Your task to perform on an android device: turn on translation in the chrome app Image 0: 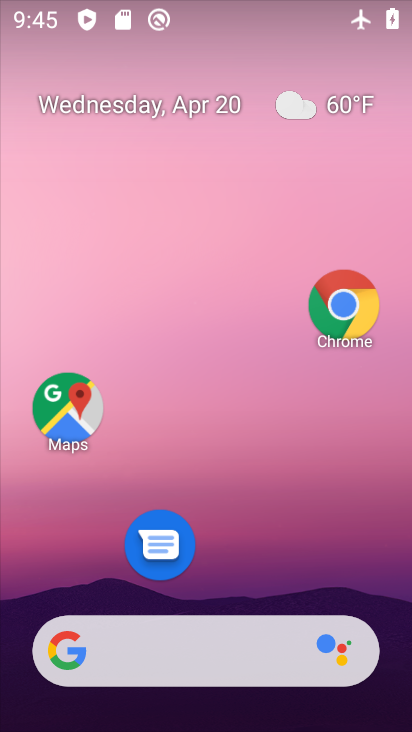
Step 0: drag from (286, 516) to (288, 110)
Your task to perform on an android device: turn on translation in the chrome app Image 1: 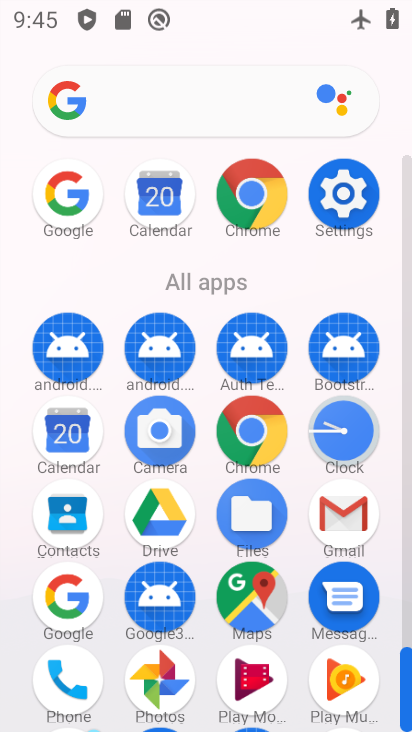
Step 1: click (252, 200)
Your task to perform on an android device: turn on translation in the chrome app Image 2: 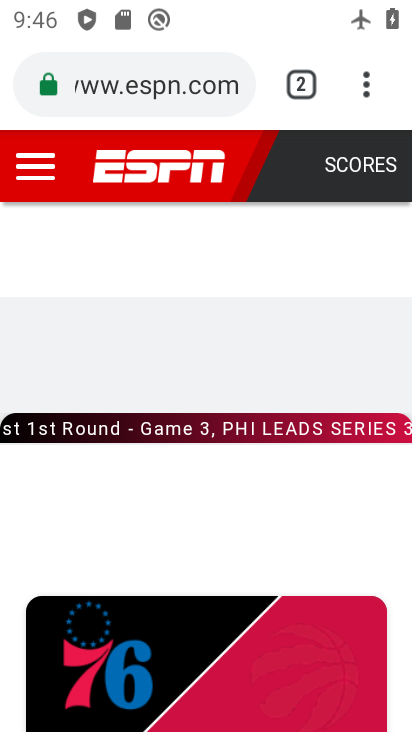
Step 2: click (365, 93)
Your task to perform on an android device: turn on translation in the chrome app Image 3: 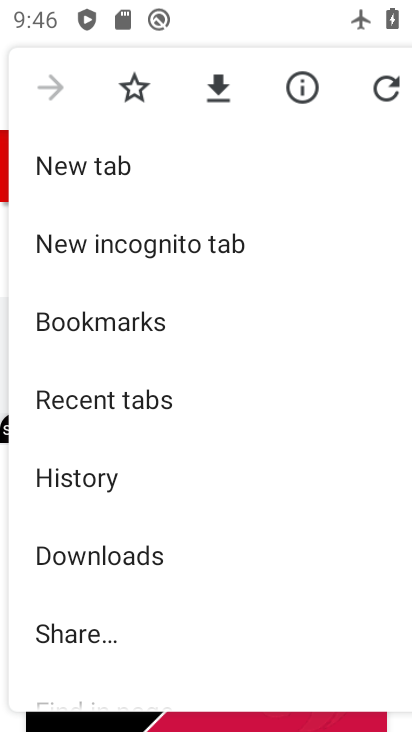
Step 3: task complete